Your task to perform on an android device: delete location history Image 0: 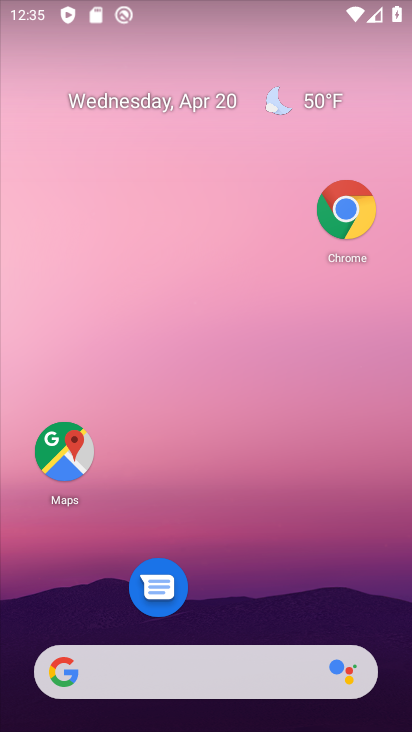
Step 0: drag from (247, 623) to (295, 110)
Your task to perform on an android device: delete location history Image 1: 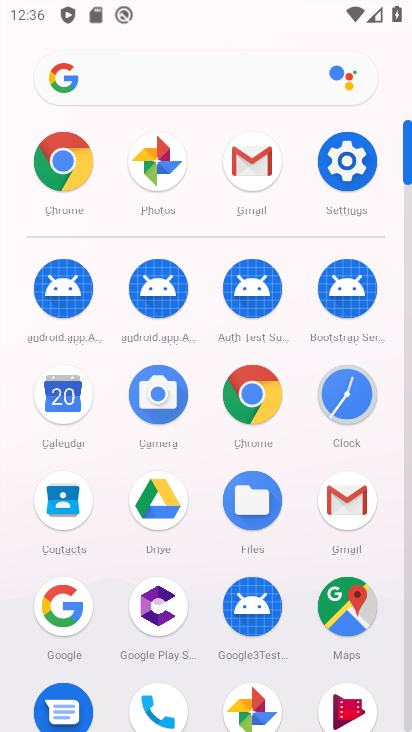
Step 1: click (340, 603)
Your task to perform on an android device: delete location history Image 2: 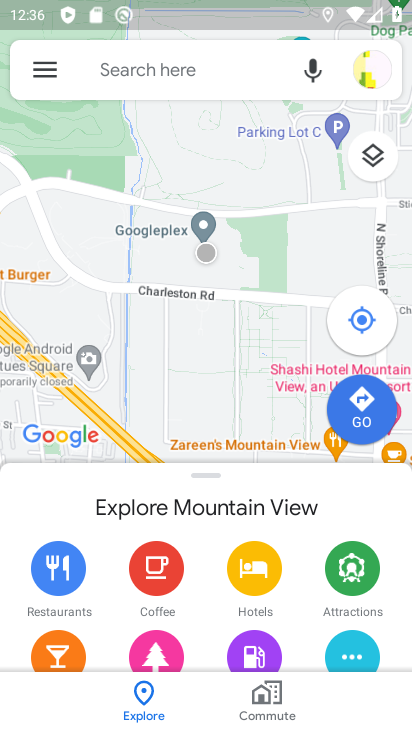
Step 2: click (41, 76)
Your task to perform on an android device: delete location history Image 3: 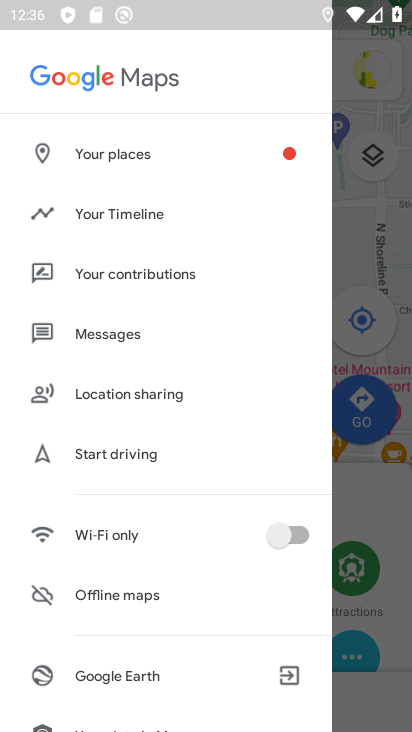
Step 3: click (90, 212)
Your task to perform on an android device: delete location history Image 4: 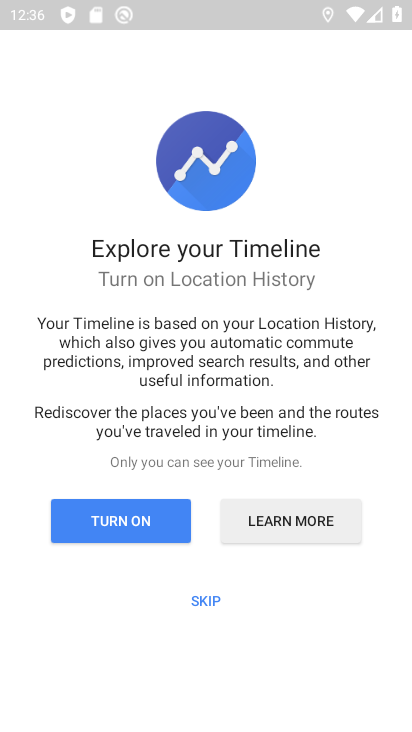
Step 4: click (195, 596)
Your task to perform on an android device: delete location history Image 5: 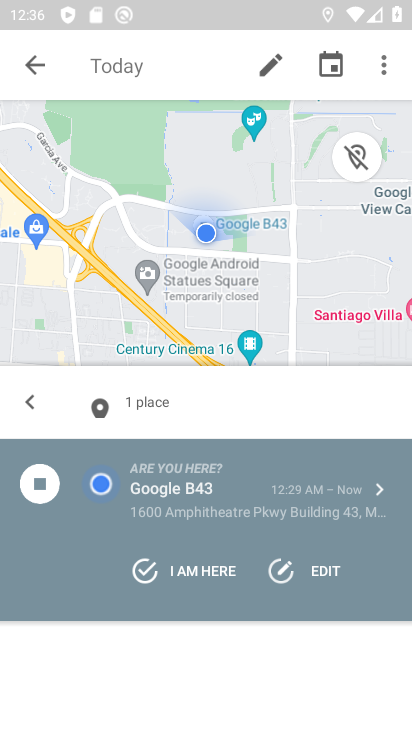
Step 5: click (383, 60)
Your task to perform on an android device: delete location history Image 6: 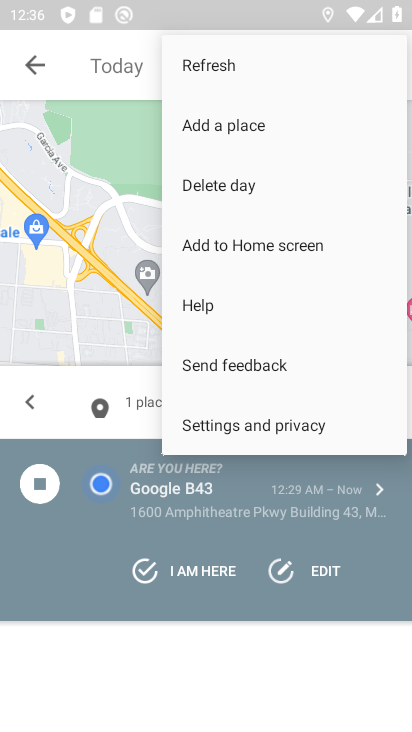
Step 6: click (241, 419)
Your task to perform on an android device: delete location history Image 7: 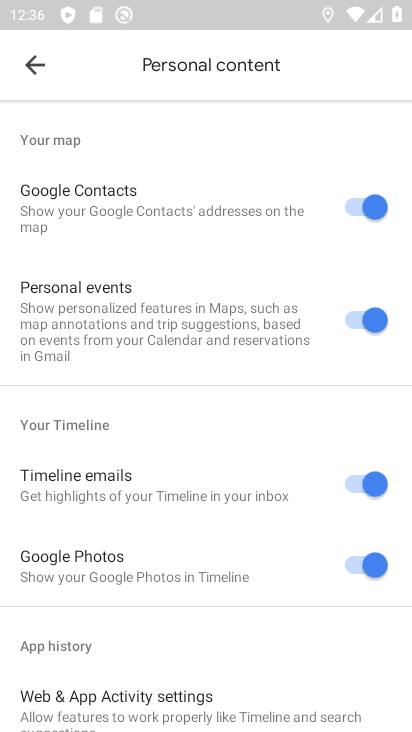
Step 7: drag from (117, 610) to (164, 344)
Your task to perform on an android device: delete location history Image 8: 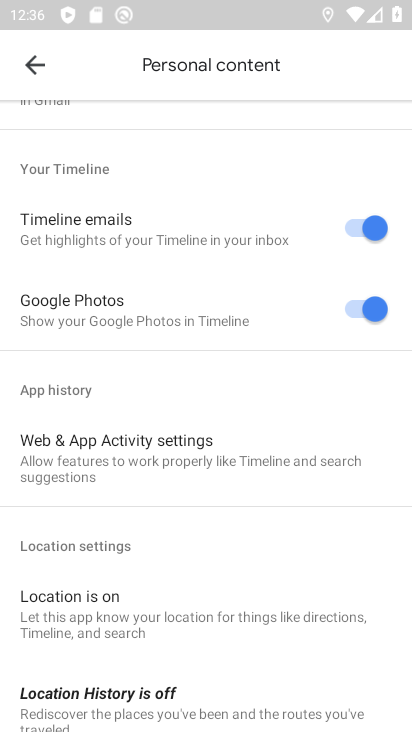
Step 8: drag from (146, 622) to (196, 368)
Your task to perform on an android device: delete location history Image 9: 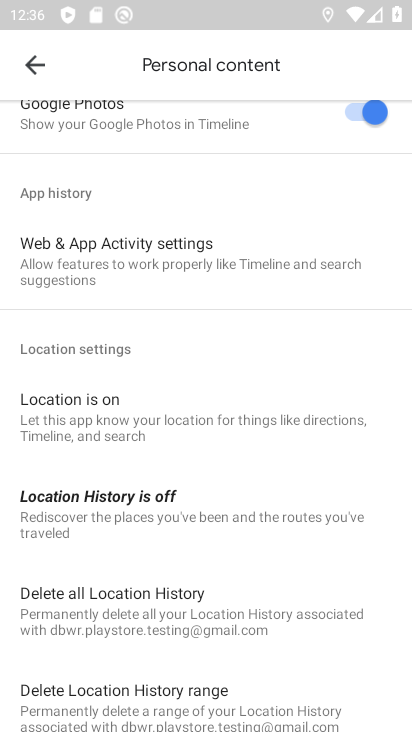
Step 9: click (151, 614)
Your task to perform on an android device: delete location history Image 10: 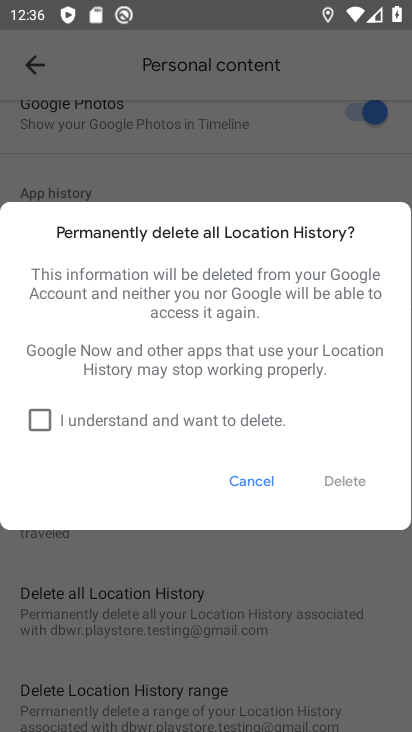
Step 10: click (45, 421)
Your task to perform on an android device: delete location history Image 11: 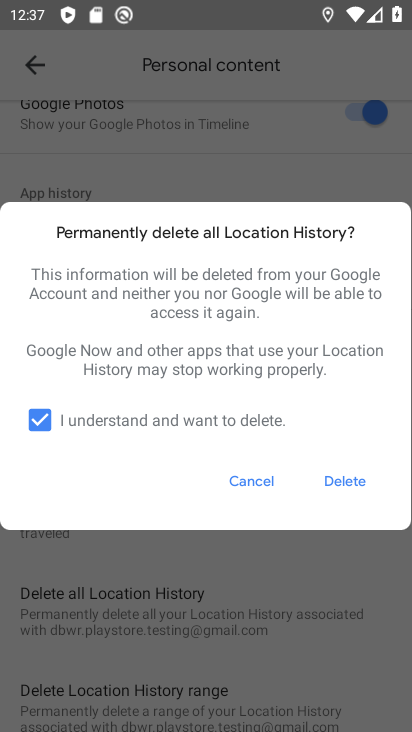
Step 11: click (346, 465)
Your task to perform on an android device: delete location history Image 12: 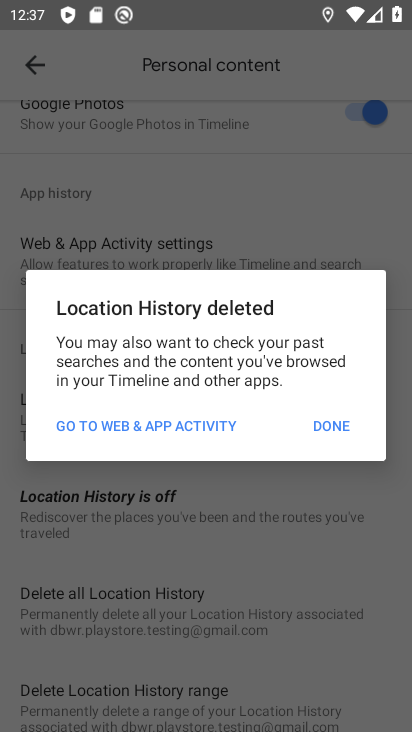
Step 12: click (343, 425)
Your task to perform on an android device: delete location history Image 13: 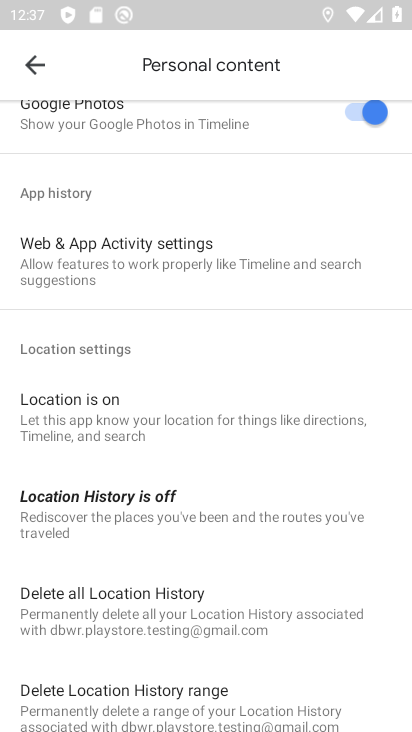
Step 13: task complete